Your task to perform on an android device: Open accessibility settings Image 0: 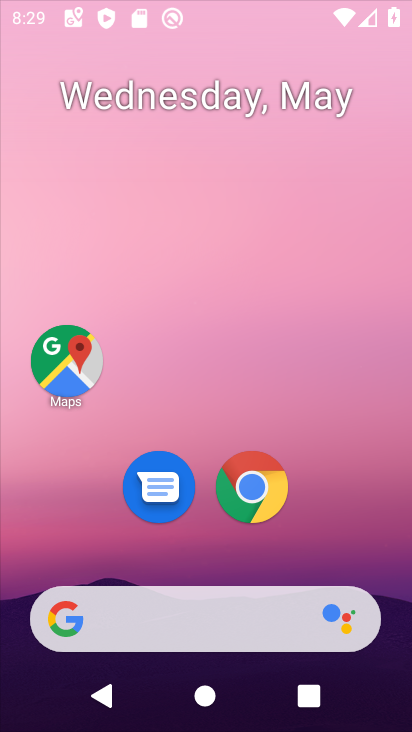
Step 0: press home button
Your task to perform on an android device: Open accessibility settings Image 1: 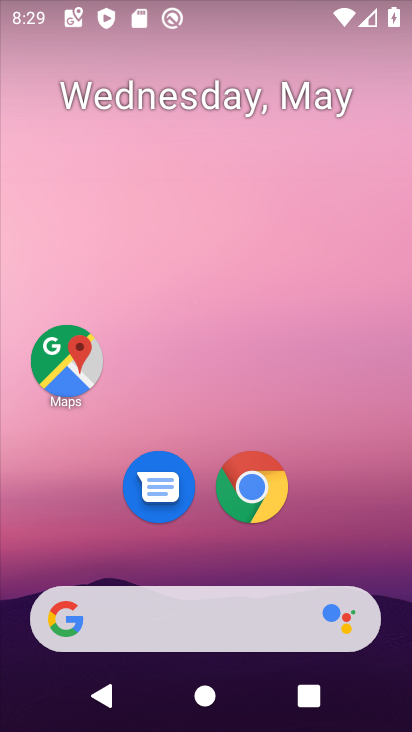
Step 1: drag from (206, 570) to (236, 112)
Your task to perform on an android device: Open accessibility settings Image 2: 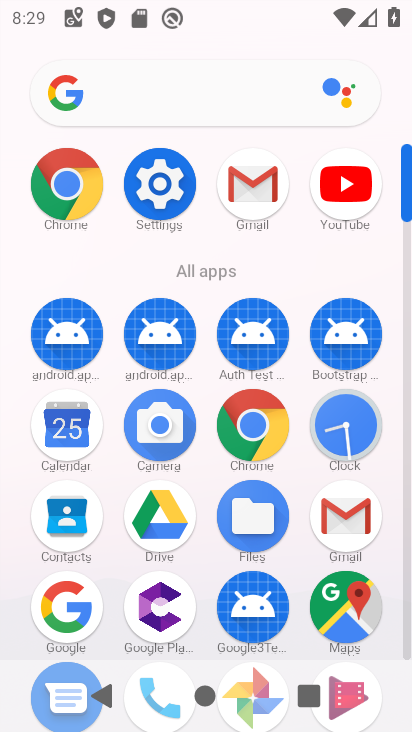
Step 2: click (156, 175)
Your task to perform on an android device: Open accessibility settings Image 3: 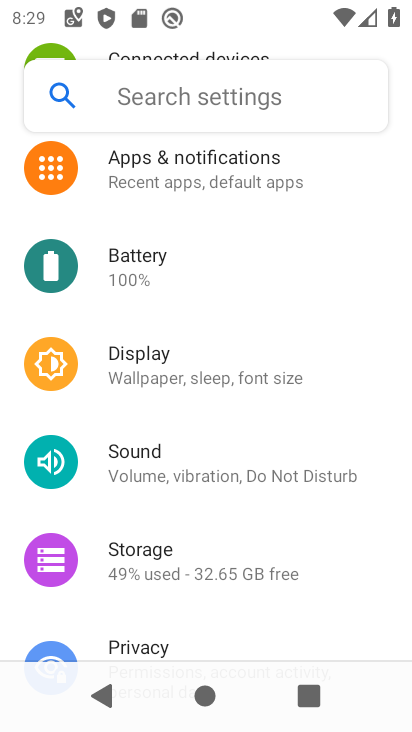
Step 3: drag from (212, 642) to (269, 182)
Your task to perform on an android device: Open accessibility settings Image 4: 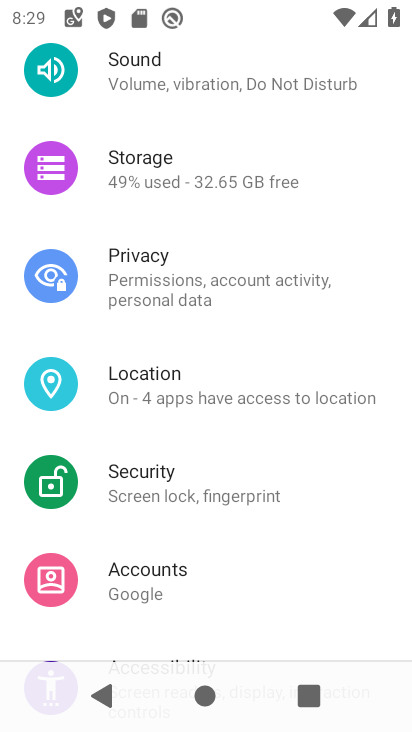
Step 4: drag from (184, 596) to (237, 288)
Your task to perform on an android device: Open accessibility settings Image 5: 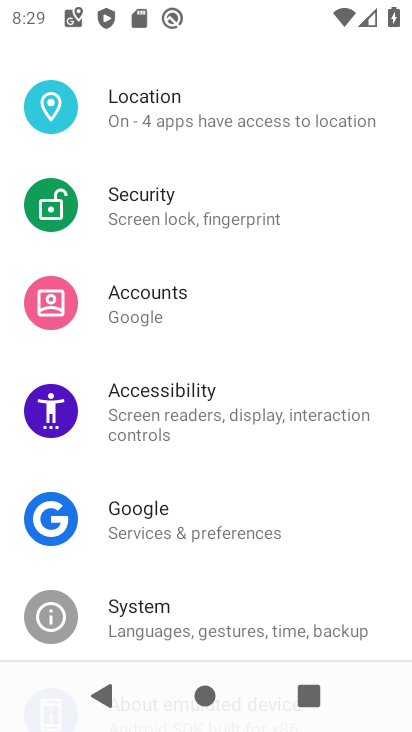
Step 5: click (225, 409)
Your task to perform on an android device: Open accessibility settings Image 6: 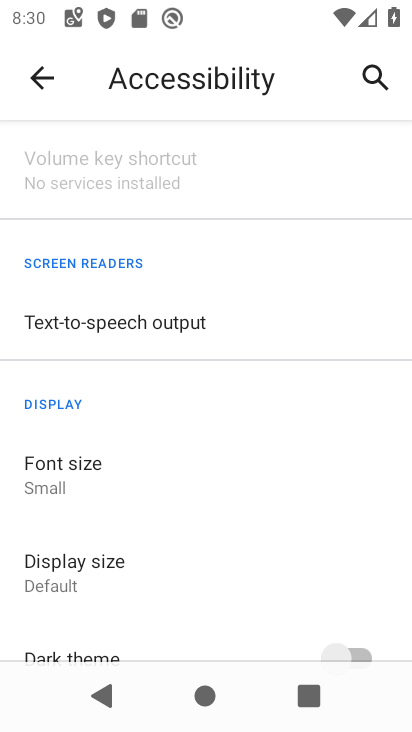
Step 6: task complete